Your task to perform on an android device: set the timer Image 0: 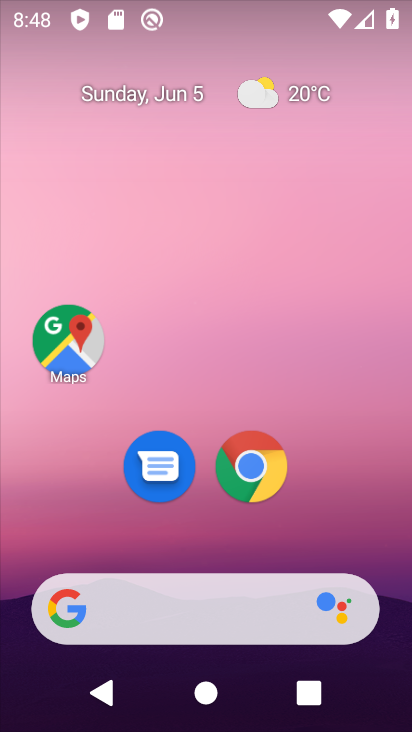
Step 0: drag from (228, 545) to (202, 10)
Your task to perform on an android device: set the timer Image 1: 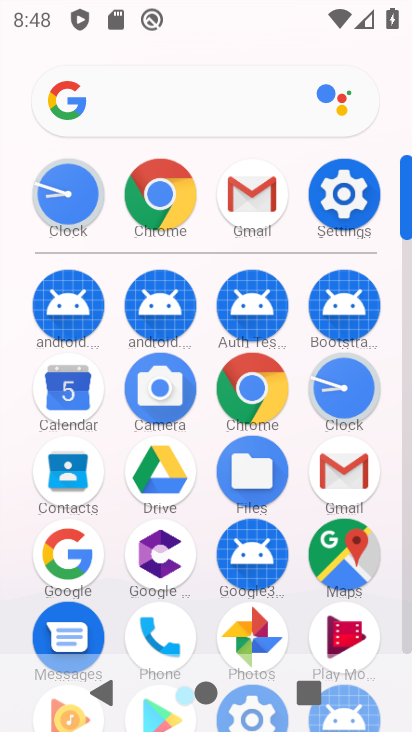
Step 1: click (353, 389)
Your task to perform on an android device: set the timer Image 2: 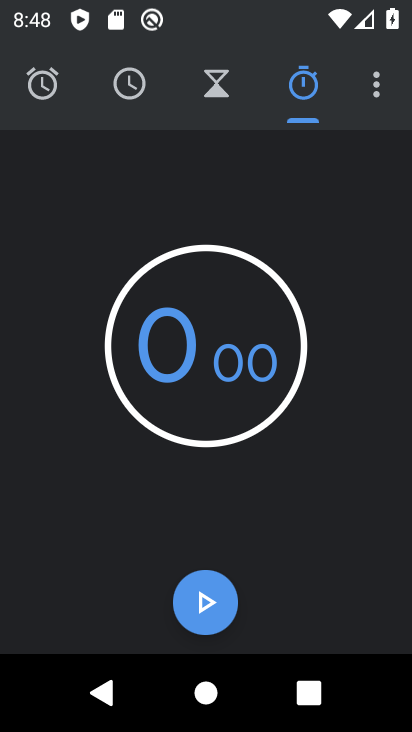
Step 2: click (377, 89)
Your task to perform on an android device: set the timer Image 3: 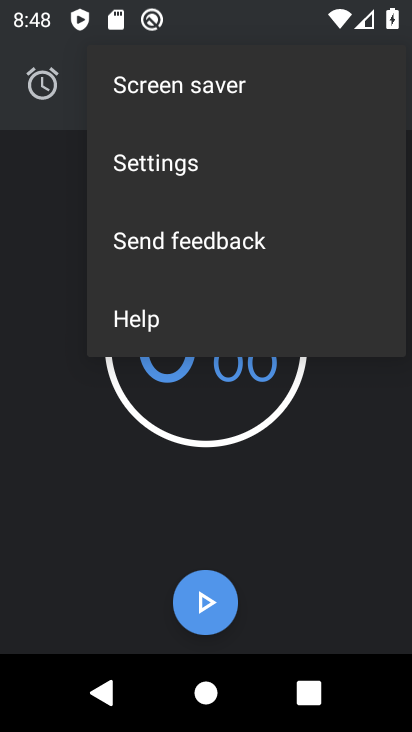
Step 3: click (358, 440)
Your task to perform on an android device: set the timer Image 4: 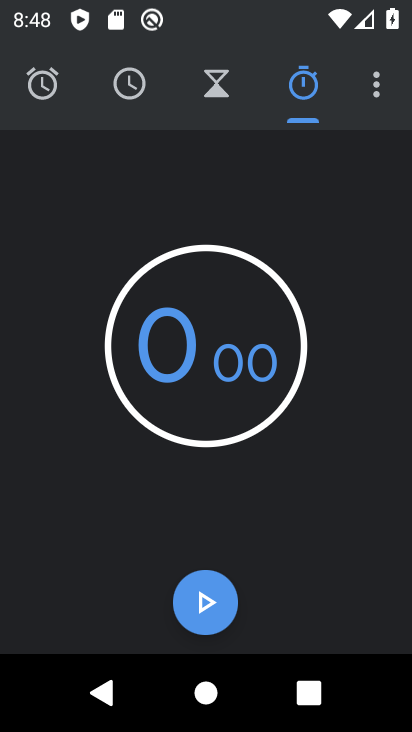
Step 4: click (211, 99)
Your task to perform on an android device: set the timer Image 5: 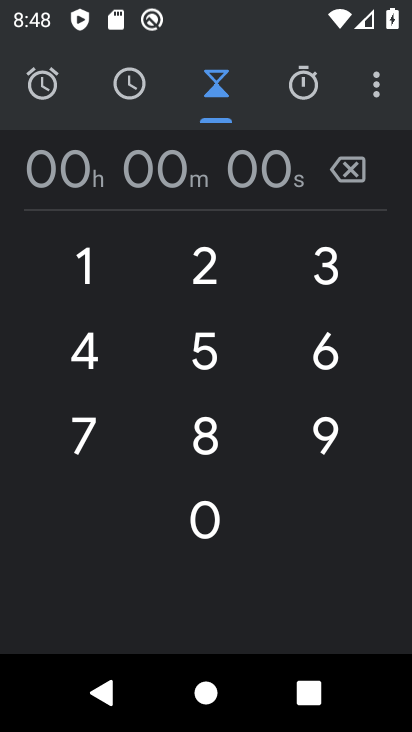
Step 5: click (206, 287)
Your task to perform on an android device: set the timer Image 6: 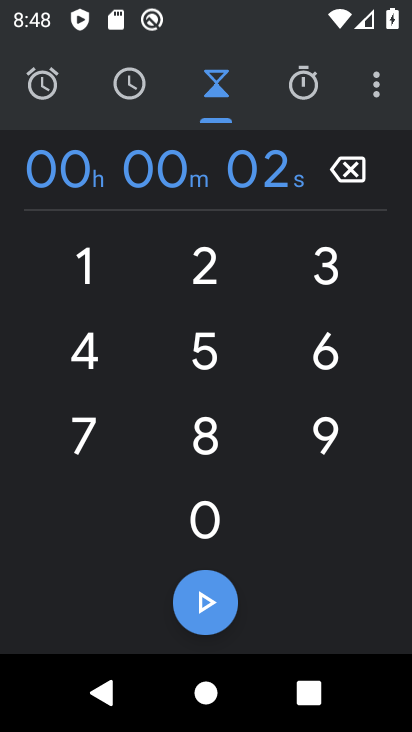
Step 6: click (210, 519)
Your task to perform on an android device: set the timer Image 7: 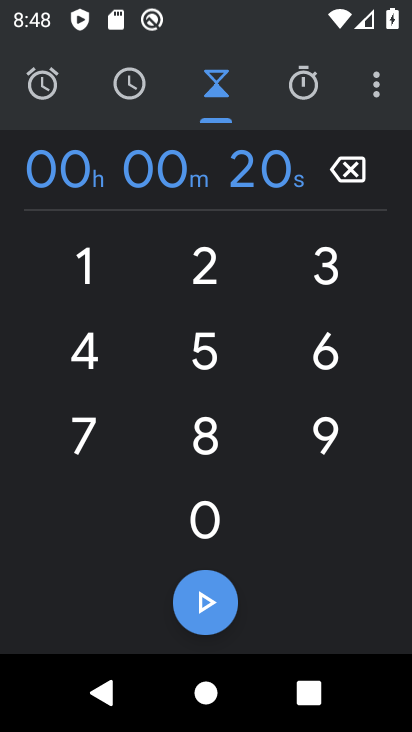
Step 7: click (206, 278)
Your task to perform on an android device: set the timer Image 8: 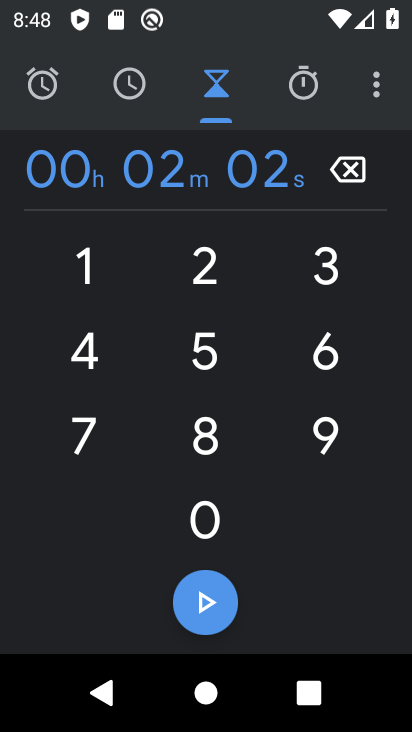
Step 8: click (219, 515)
Your task to perform on an android device: set the timer Image 9: 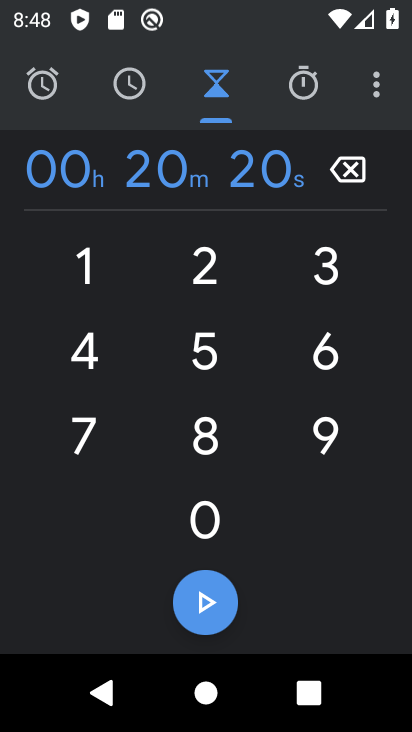
Step 9: click (208, 647)
Your task to perform on an android device: set the timer Image 10: 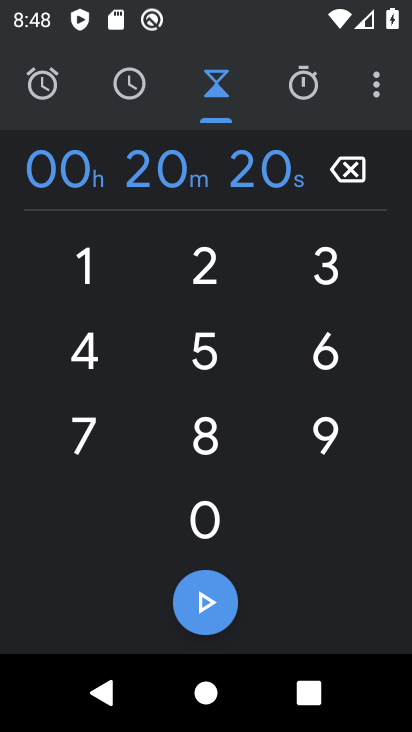
Step 10: click (208, 603)
Your task to perform on an android device: set the timer Image 11: 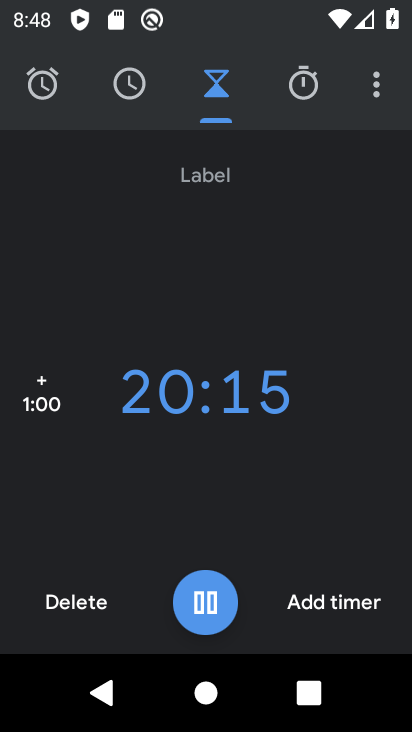
Step 11: task complete